Your task to perform on an android device: see creations saved in the google photos Image 0: 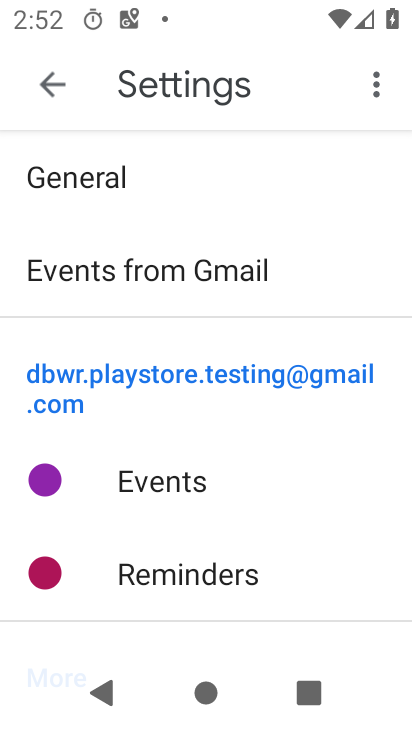
Step 0: press home button
Your task to perform on an android device: see creations saved in the google photos Image 1: 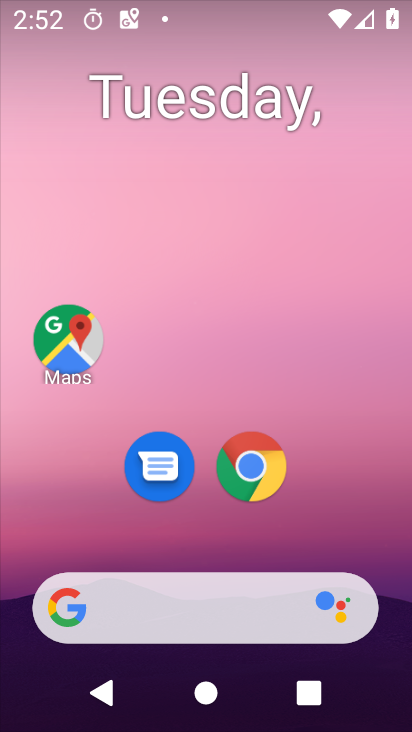
Step 1: drag from (380, 525) to (318, 163)
Your task to perform on an android device: see creations saved in the google photos Image 2: 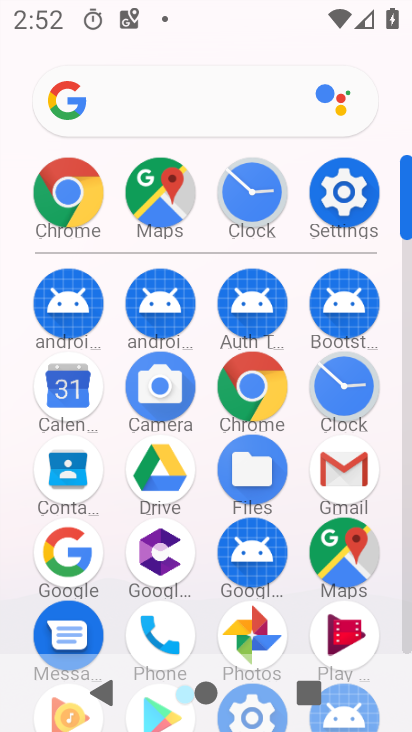
Step 2: drag from (391, 645) to (398, 408)
Your task to perform on an android device: see creations saved in the google photos Image 3: 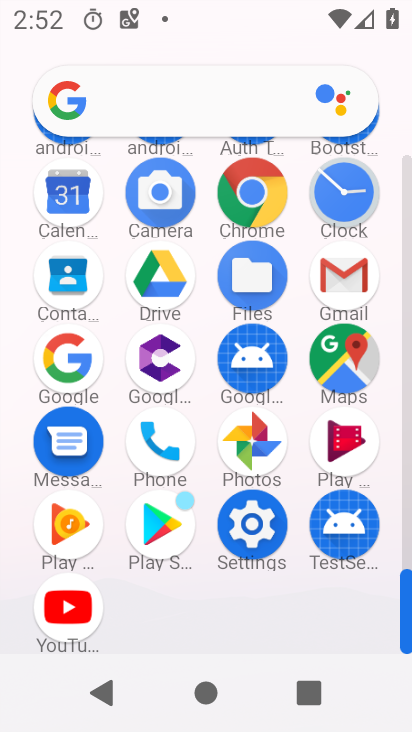
Step 3: click (234, 442)
Your task to perform on an android device: see creations saved in the google photos Image 4: 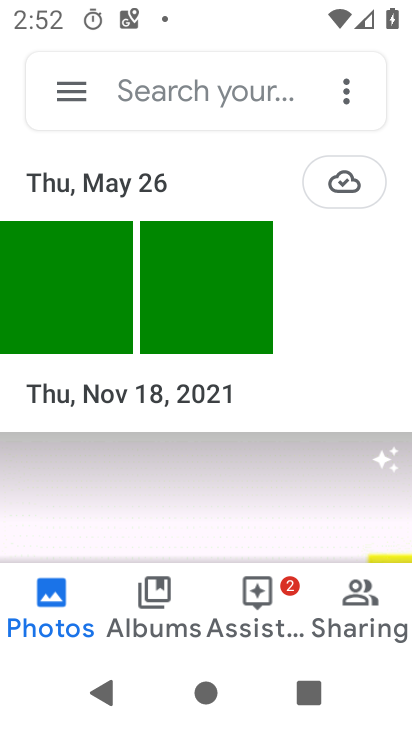
Step 4: click (242, 85)
Your task to perform on an android device: see creations saved in the google photos Image 5: 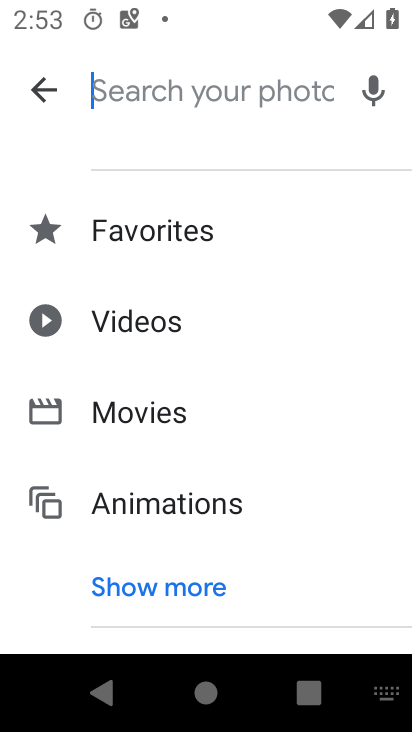
Step 5: click (191, 586)
Your task to perform on an android device: see creations saved in the google photos Image 6: 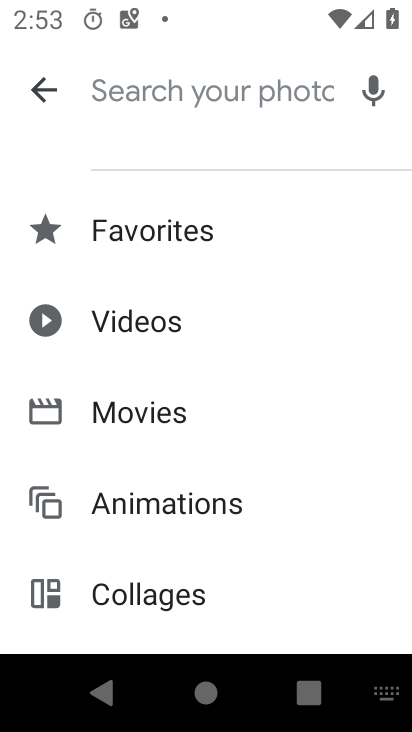
Step 6: drag from (288, 556) to (300, 322)
Your task to perform on an android device: see creations saved in the google photos Image 7: 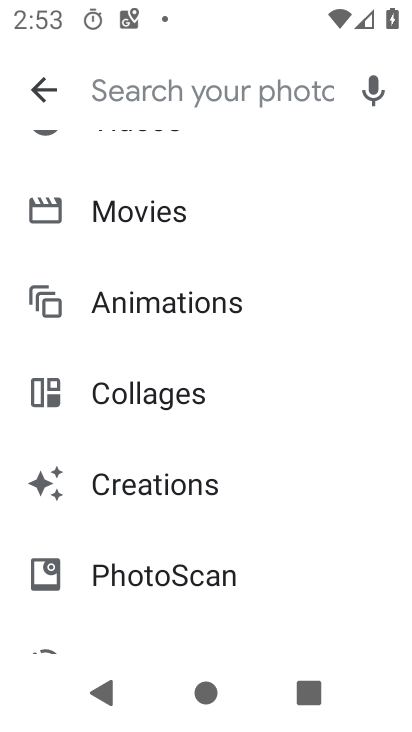
Step 7: click (216, 498)
Your task to perform on an android device: see creations saved in the google photos Image 8: 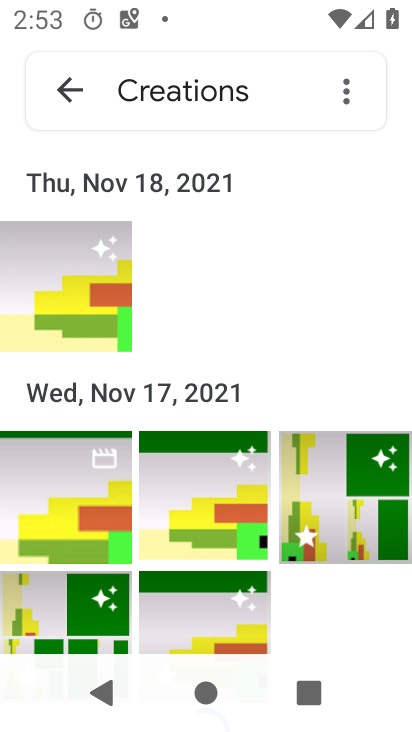
Step 8: task complete